Your task to perform on an android device: snooze an email in the gmail app Image 0: 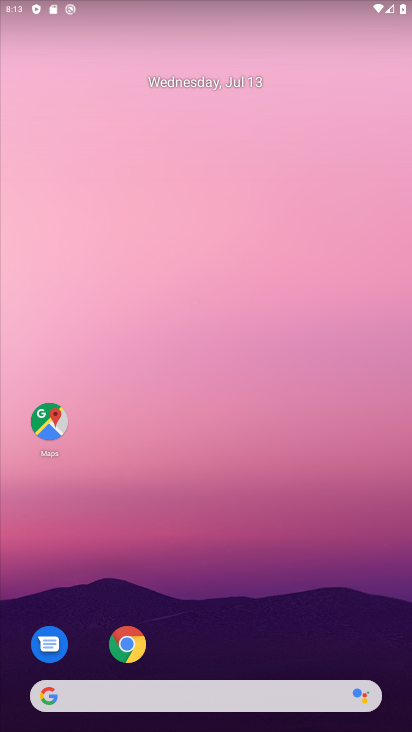
Step 0: drag from (217, 720) to (210, 632)
Your task to perform on an android device: snooze an email in the gmail app Image 1: 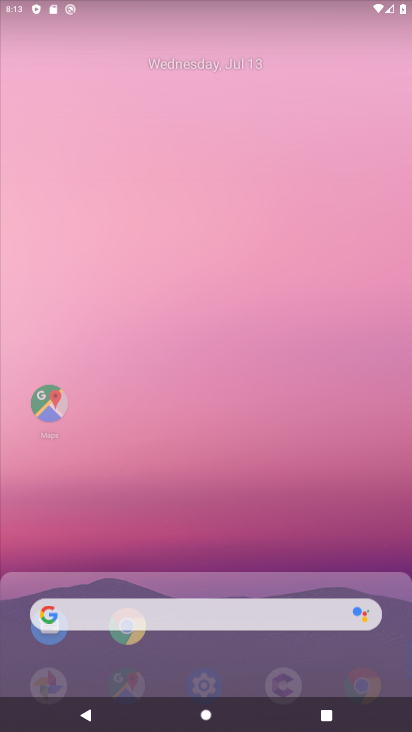
Step 1: drag from (196, 353) to (206, 212)
Your task to perform on an android device: snooze an email in the gmail app Image 2: 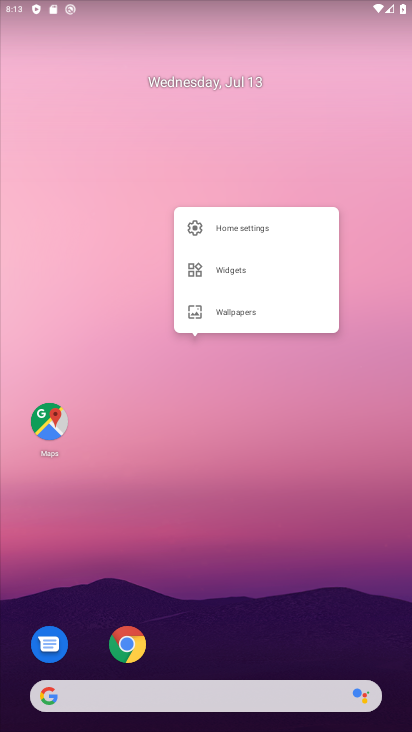
Step 2: click (288, 458)
Your task to perform on an android device: snooze an email in the gmail app Image 3: 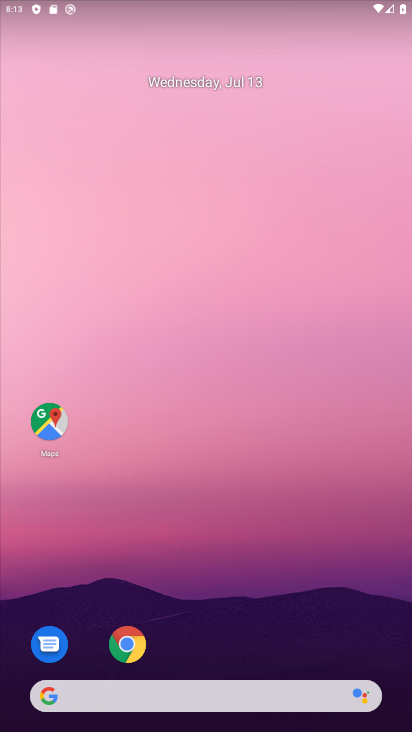
Step 3: drag from (292, 721) to (223, 39)
Your task to perform on an android device: snooze an email in the gmail app Image 4: 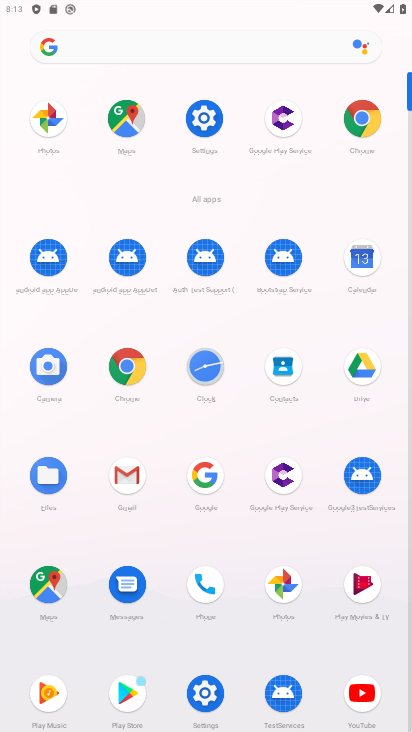
Step 4: click (138, 472)
Your task to perform on an android device: snooze an email in the gmail app Image 5: 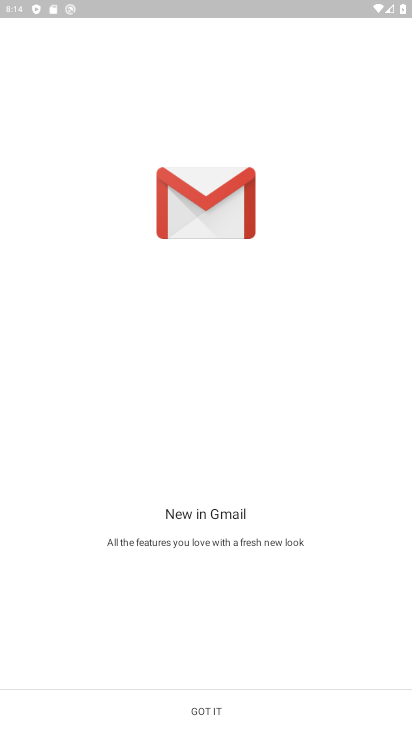
Step 5: click (228, 716)
Your task to perform on an android device: snooze an email in the gmail app Image 6: 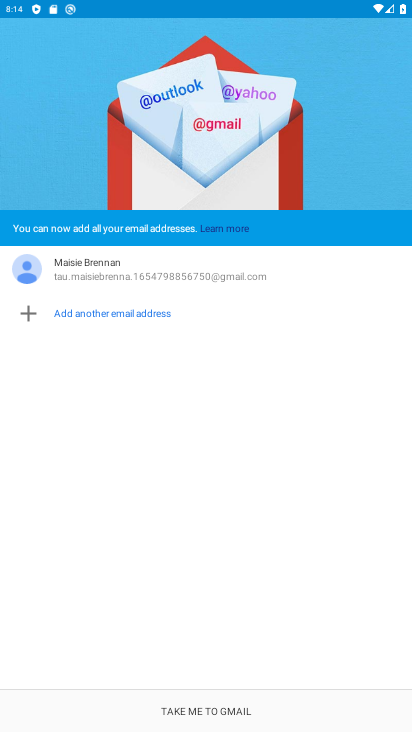
Step 6: click (211, 709)
Your task to perform on an android device: snooze an email in the gmail app Image 7: 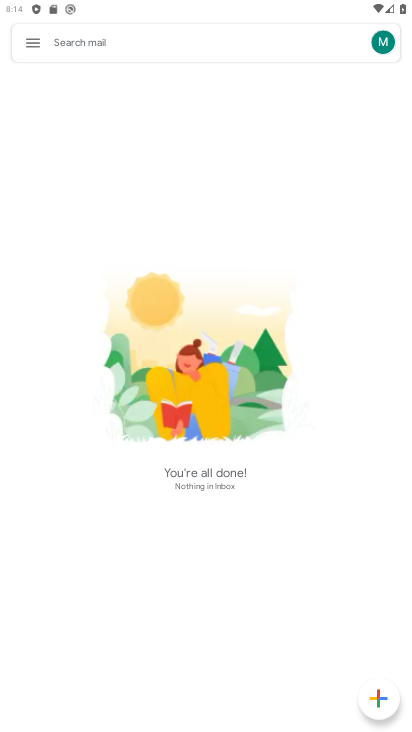
Step 7: task complete